Your task to perform on an android device: What is the news today? Image 0: 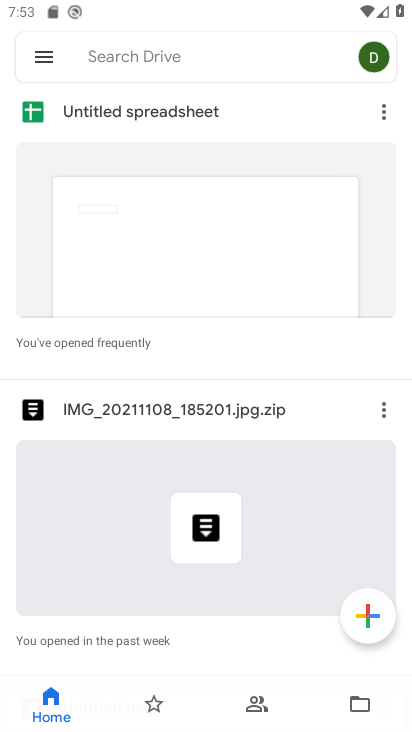
Step 0: press back button
Your task to perform on an android device: What is the news today? Image 1: 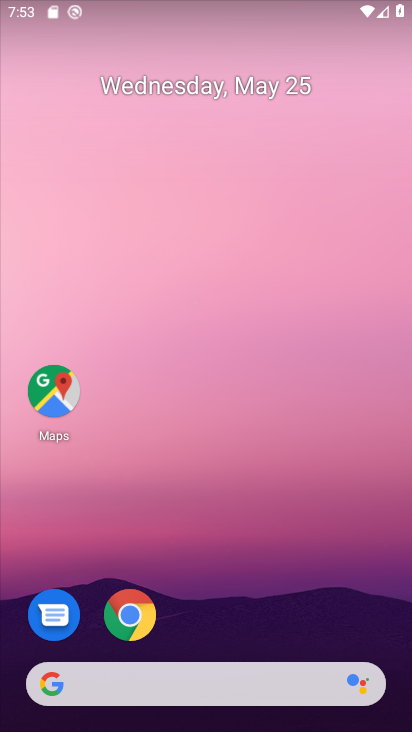
Step 1: drag from (209, 507) to (181, 38)
Your task to perform on an android device: What is the news today? Image 2: 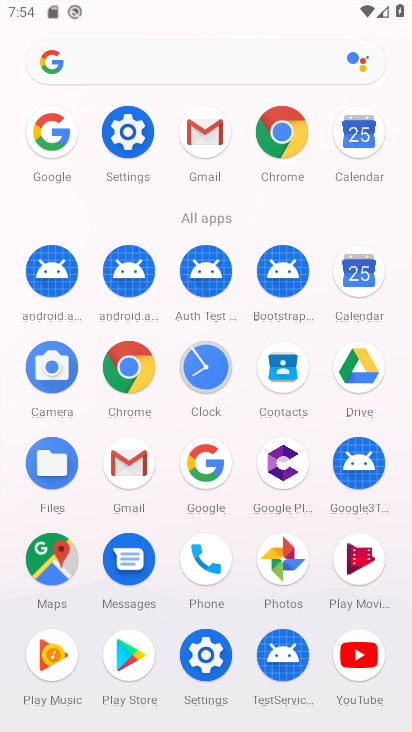
Step 2: click (131, 360)
Your task to perform on an android device: What is the news today? Image 3: 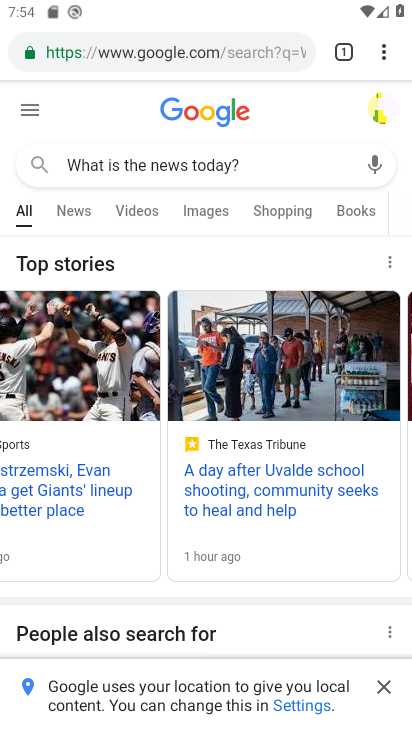
Step 3: task complete